Your task to perform on an android device: Open Youtube and go to "Your channel" Image 0: 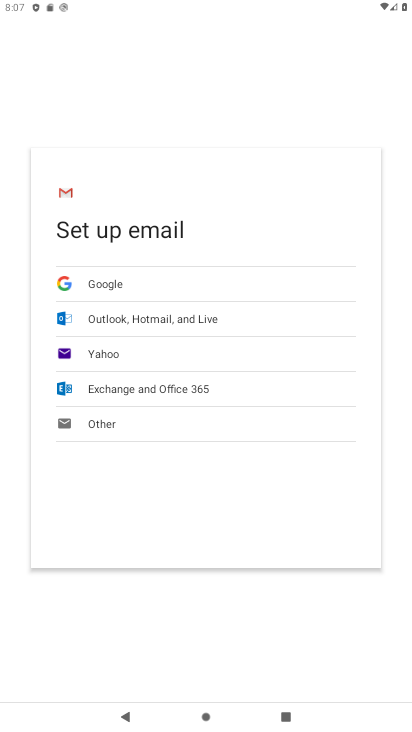
Step 0: press home button
Your task to perform on an android device: Open Youtube and go to "Your channel" Image 1: 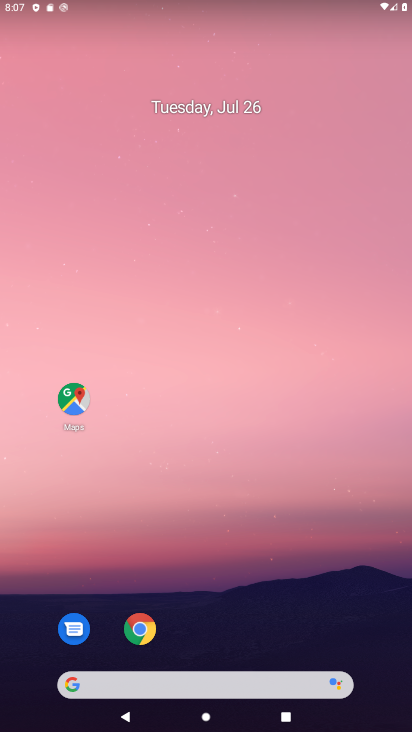
Step 1: drag from (219, 639) to (156, 65)
Your task to perform on an android device: Open Youtube and go to "Your channel" Image 2: 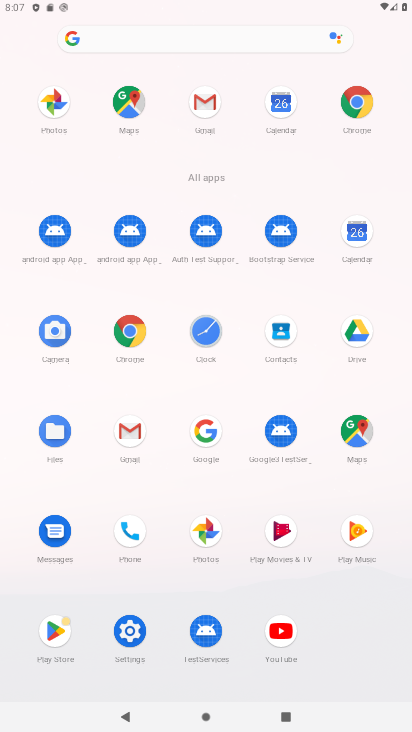
Step 2: click (291, 638)
Your task to perform on an android device: Open Youtube and go to "Your channel" Image 3: 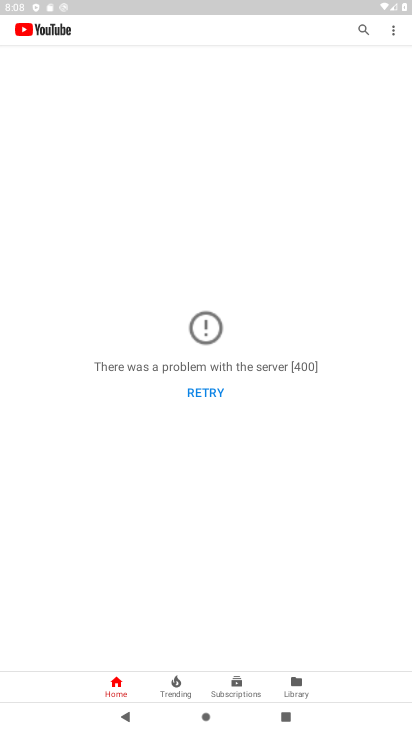
Step 3: click (390, 36)
Your task to perform on an android device: Open Youtube and go to "Your channel" Image 4: 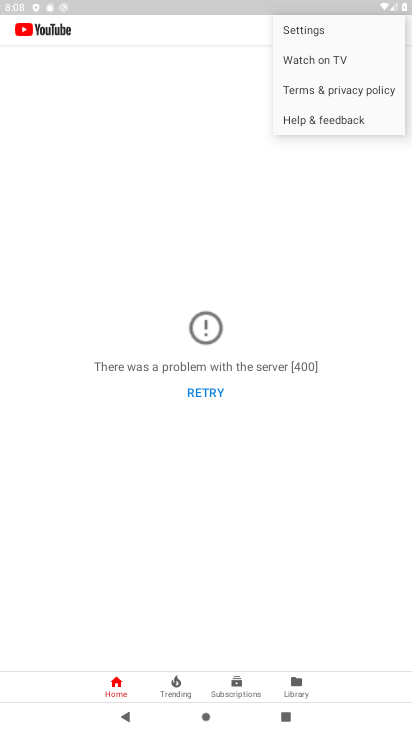
Step 4: task complete